Your task to perform on an android device: open device folders in google photos Image 0: 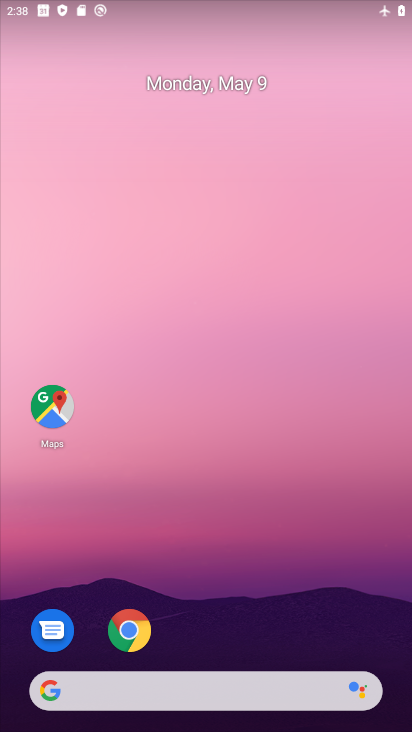
Step 0: drag from (248, 618) to (154, 115)
Your task to perform on an android device: open device folders in google photos Image 1: 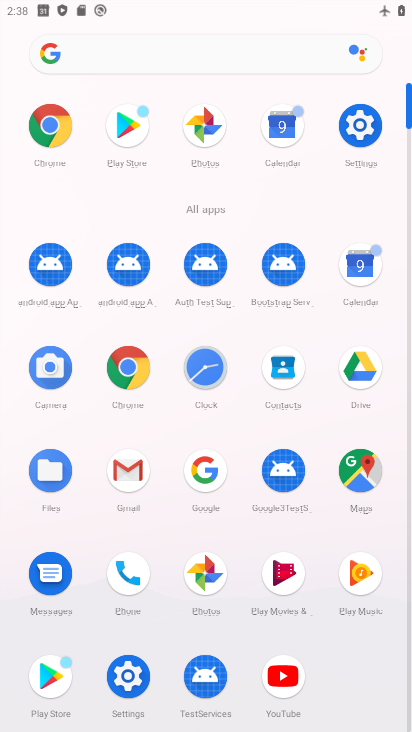
Step 1: click (219, 125)
Your task to perform on an android device: open device folders in google photos Image 2: 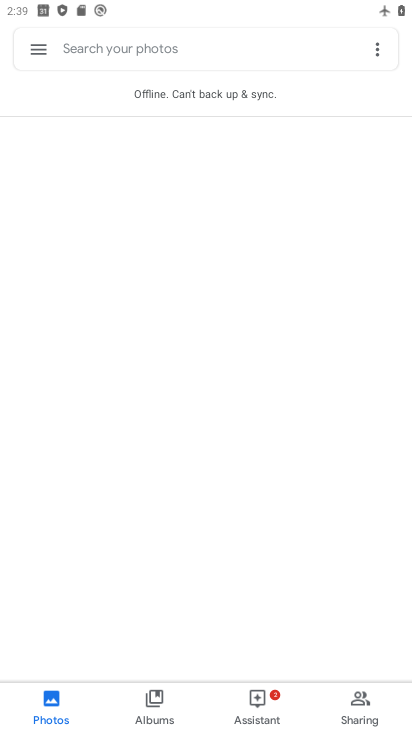
Step 2: click (31, 47)
Your task to perform on an android device: open device folders in google photos Image 3: 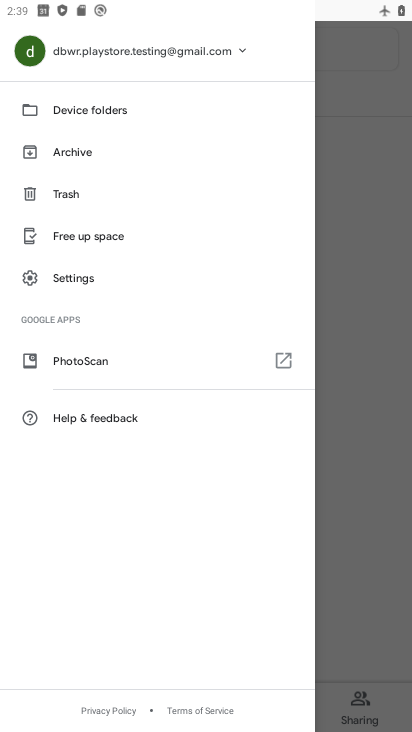
Step 3: click (75, 108)
Your task to perform on an android device: open device folders in google photos Image 4: 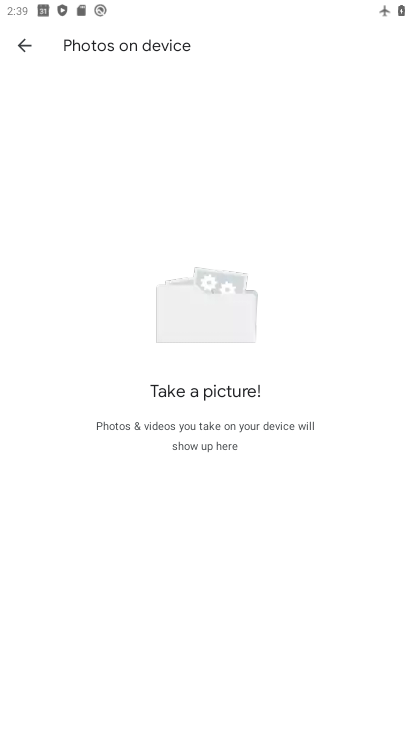
Step 4: task complete